Your task to perform on an android device: turn on priority inbox in the gmail app Image 0: 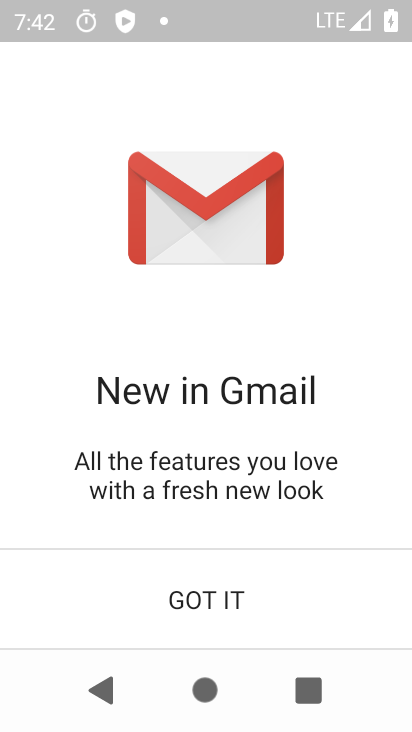
Step 0: press home button
Your task to perform on an android device: turn on priority inbox in the gmail app Image 1: 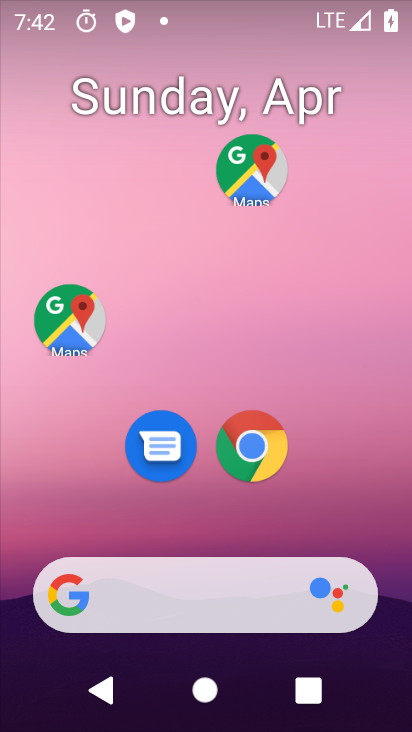
Step 1: drag from (228, 541) to (345, 7)
Your task to perform on an android device: turn on priority inbox in the gmail app Image 2: 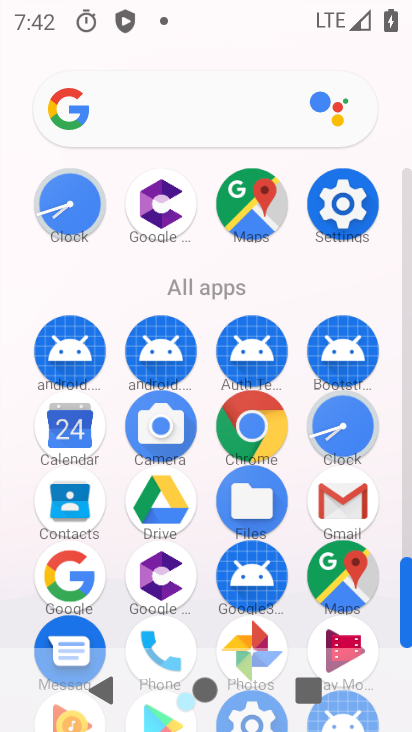
Step 2: click (353, 509)
Your task to perform on an android device: turn on priority inbox in the gmail app Image 3: 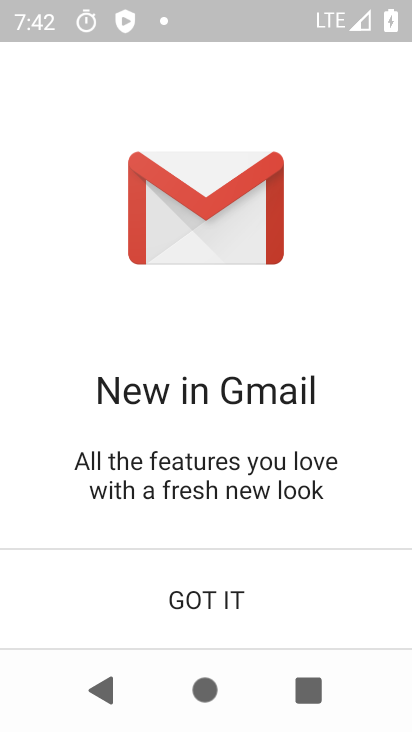
Step 3: click (262, 608)
Your task to perform on an android device: turn on priority inbox in the gmail app Image 4: 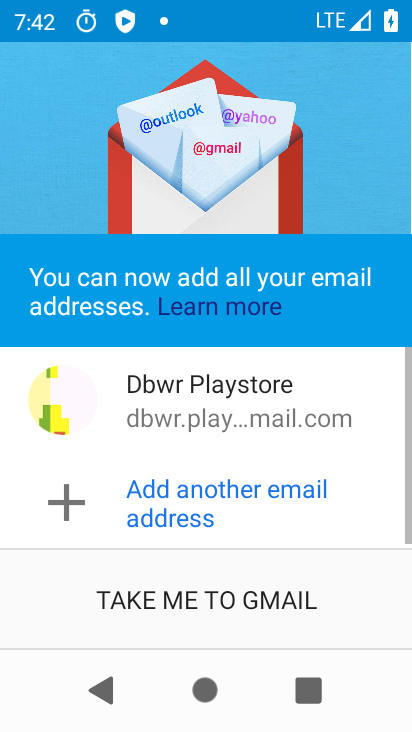
Step 4: click (211, 626)
Your task to perform on an android device: turn on priority inbox in the gmail app Image 5: 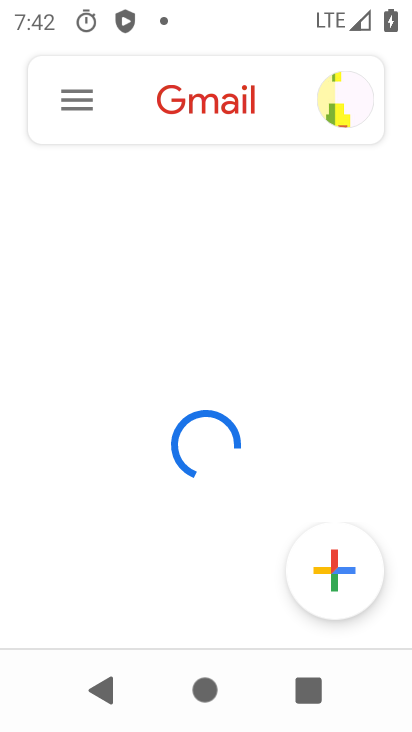
Step 5: click (63, 103)
Your task to perform on an android device: turn on priority inbox in the gmail app Image 6: 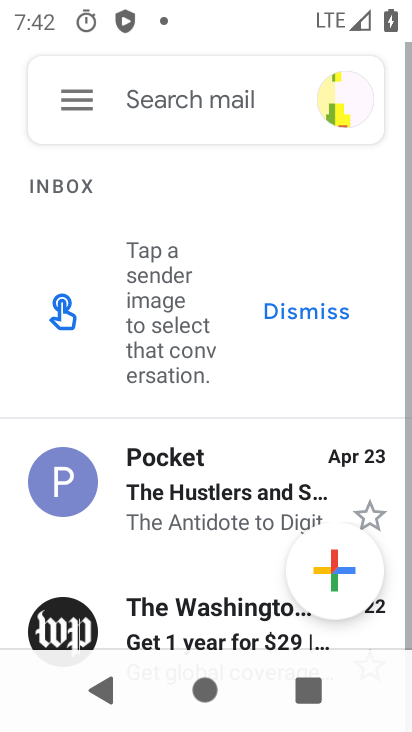
Step 6: click (73, 104)
Your task to perform on an android device: turn on priority inbox in the gmail app Image 7: 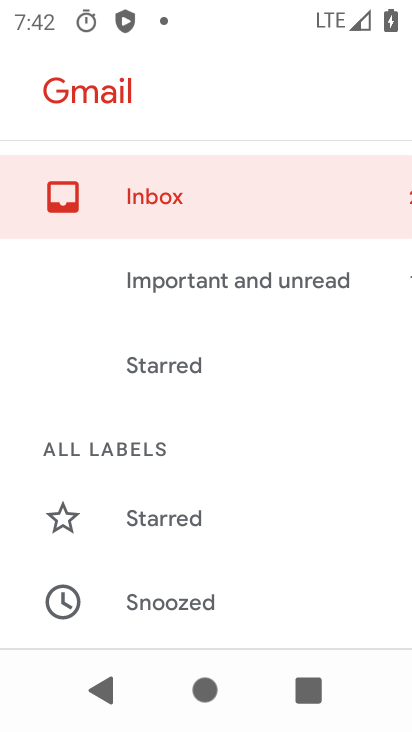
Step 7: drag from (180, 531) to (116, 15)
Your task to perform on an android device: turn on priority inbox in the gmail app Image 8: 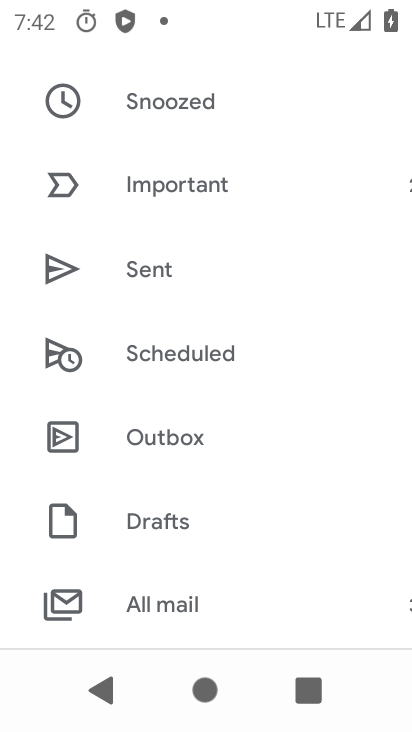
Step 8: drag from (174, 595) to (106, 44)
Your task to perform on an android device: turn on priority inbox in the gmail app Image 9: 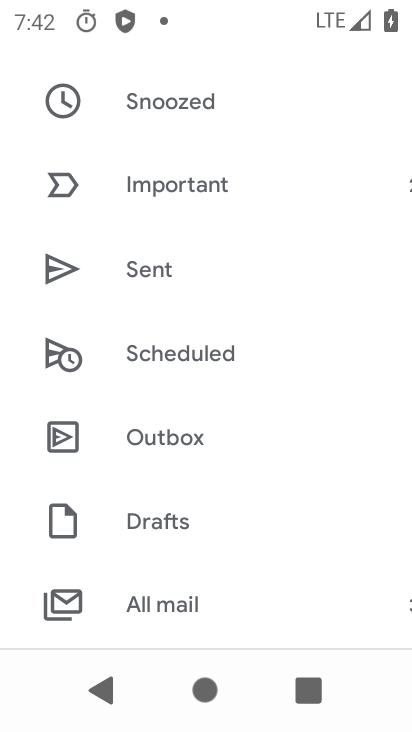
Step 9: drag from (168, 537) to (174, 78)
Your task to perform on an android device: turn on priority inbox in the gmail app Image 10: 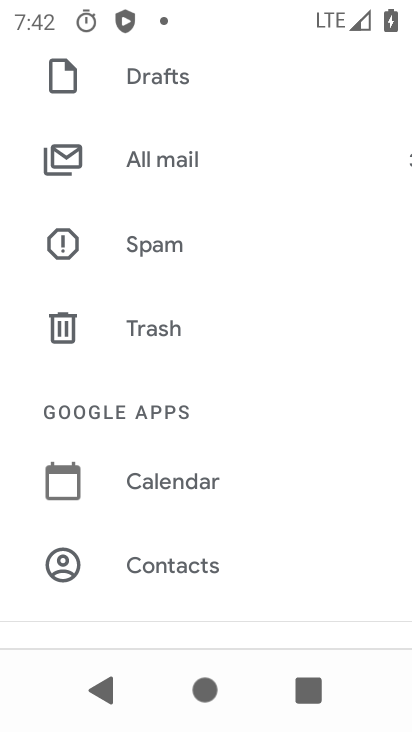
Step 10: drag from (190, 553) to (185, 102)
Your task to perform on an android device: turn on priority inbox in the gmail app Image 11: 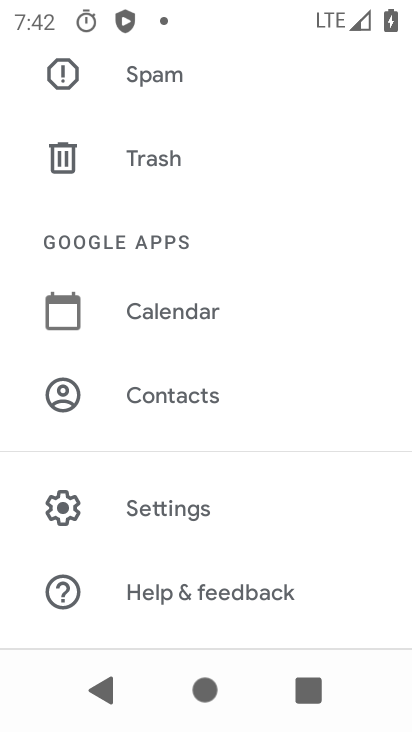
Step 11: click (185, 518)
Your task to perform on an android device: turn on priority inbox in the gmail app Image 12: 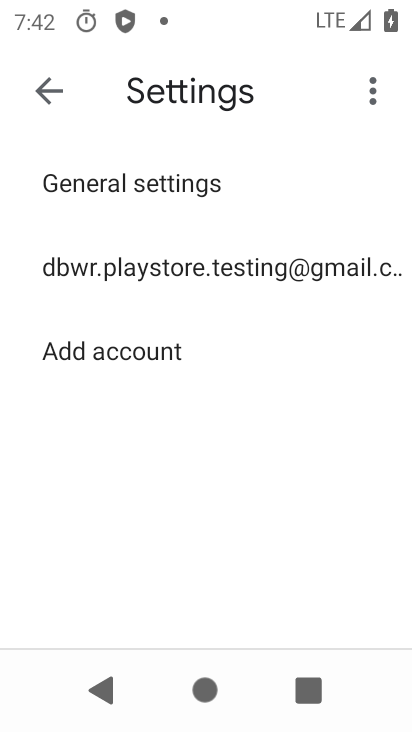
Step 12: click (110, 278)
Your task to perform on an android device: turn on priority inbox in the gmail app Image 13: 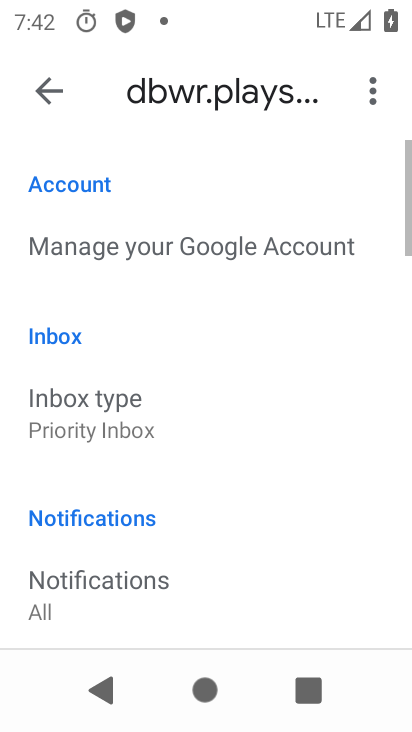
Step 13: click (119, 406)
Your task to perform on an android device: turn on priority inbox in the gmail app Image 14: 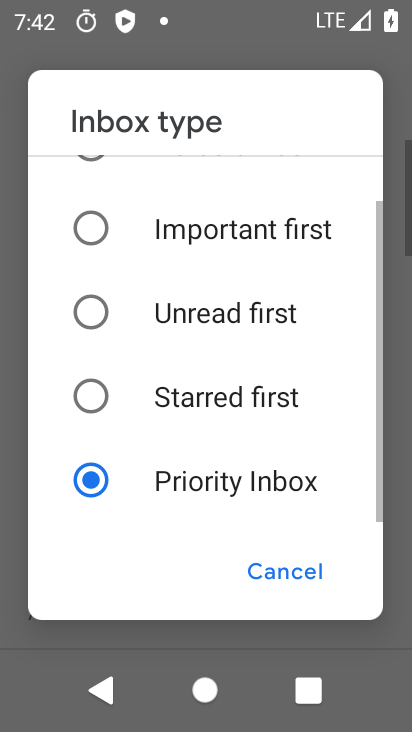
Step 14: click (151, 472)
Your task to perform on an android device: turn on priority inbox in the gmail app Image 15: 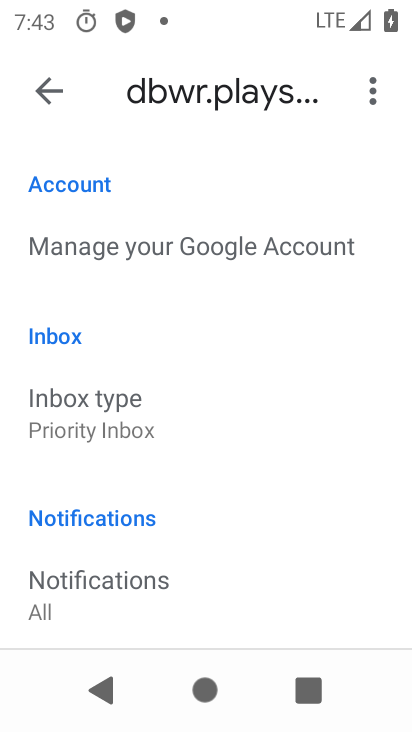
Step 15: task complete